Your task to perform on an android device: turn on javascript in the chrome app Image 0: 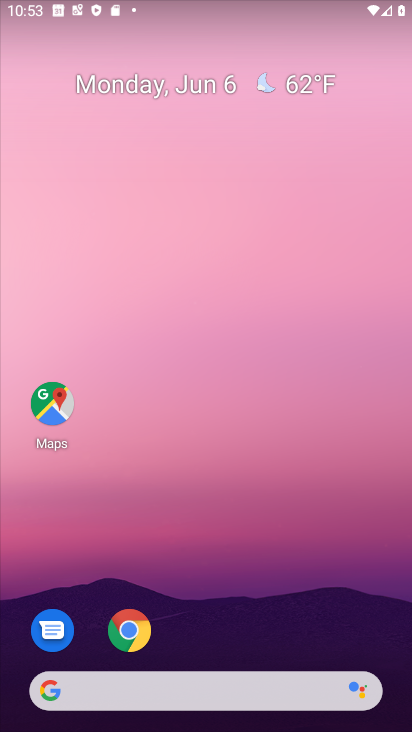
Step 0: drag from (334, 630) to (324, 131)
Your task to perform on an android device: turn on javascript in the chrome app Image 1: 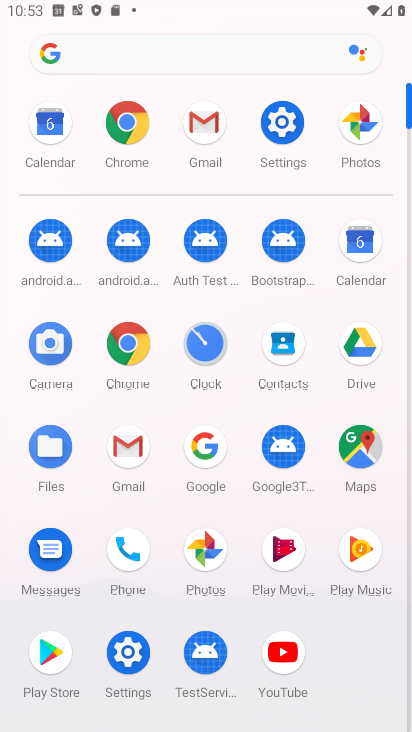
Step 1: click (122, 140)
Your task to perform on an android device: turn on javascript in the chrome app Image 2: 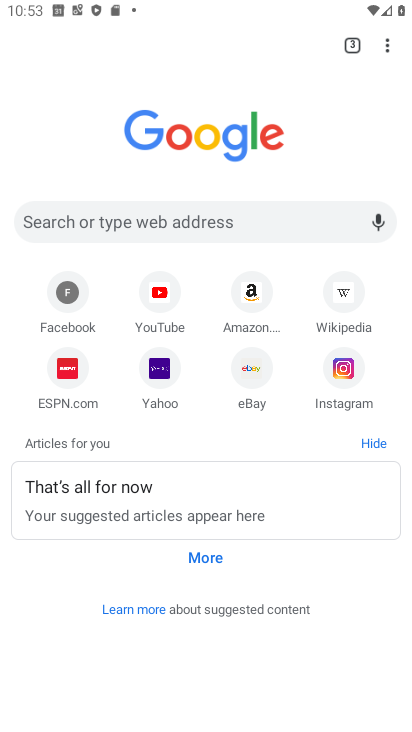
Step 2: drag from (390, 53) to (227, 386)
Your task to perform on an android device: turn on javascript in the chrome app Image 3: 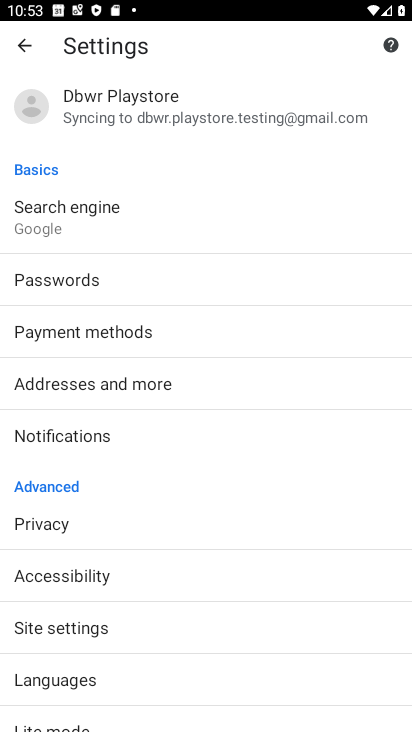
Step 3: click (159, 619)
Your task to perform on an android device: turn on javascript in the chrome app Image 4: 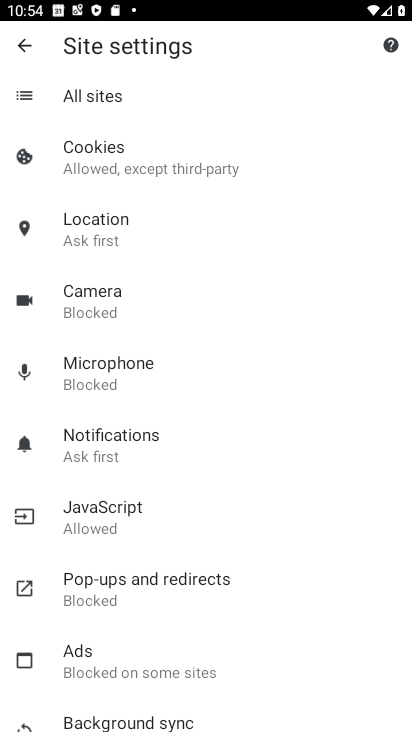
Step 4: click (108, 518)
Your task to perform on an android device: turn on javascript in the chrome app Image 5: 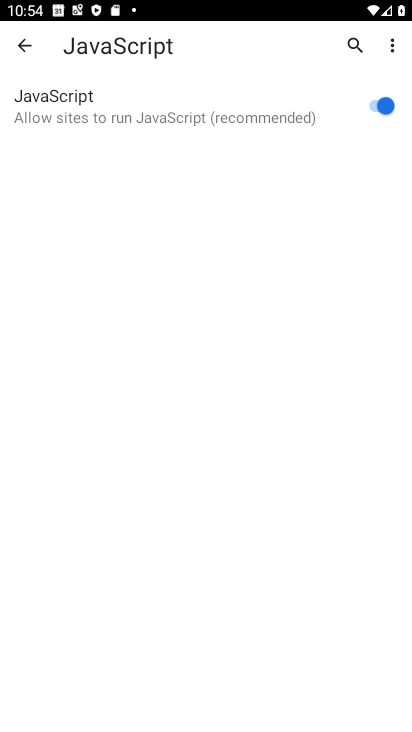
Step 5: task complete